Your task to perform on an android device: allow cookies in the chrome app Image 0: 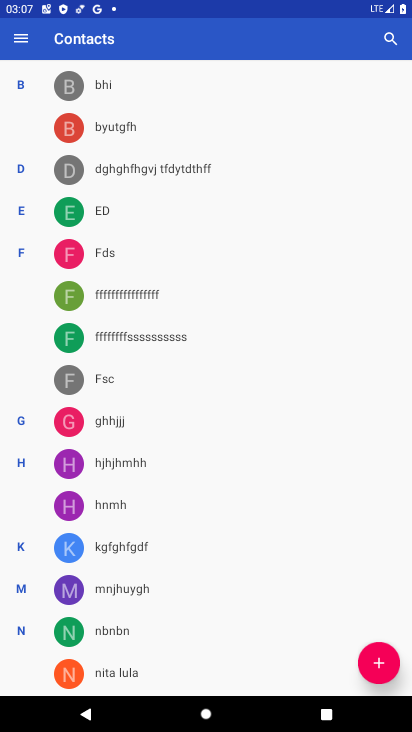
Step 0: press home button
Your task to perform on an android device: allow cookies in the chrome app Image 1: 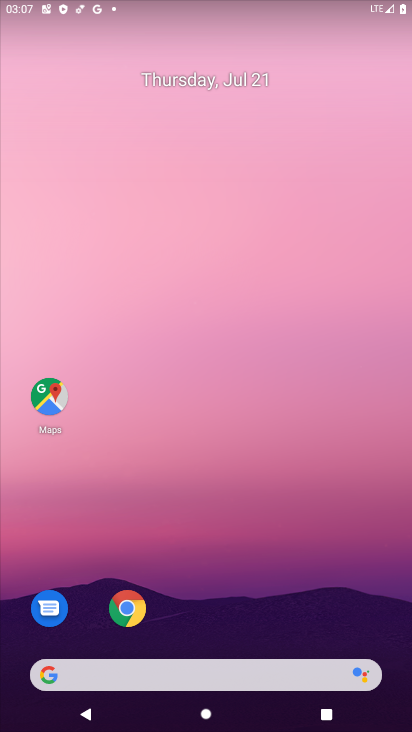
Step 1: drag from (217, 653) to (118, 75)
Your task to perform on an android device: allow cookies in the chrome app Image 2: 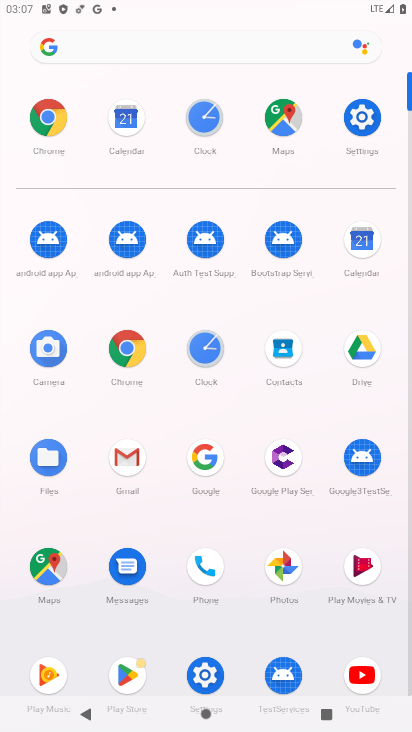
Step 2: click (126, 361)
Your task to perform on an android device: allow cookies in the chrome app Image 3: 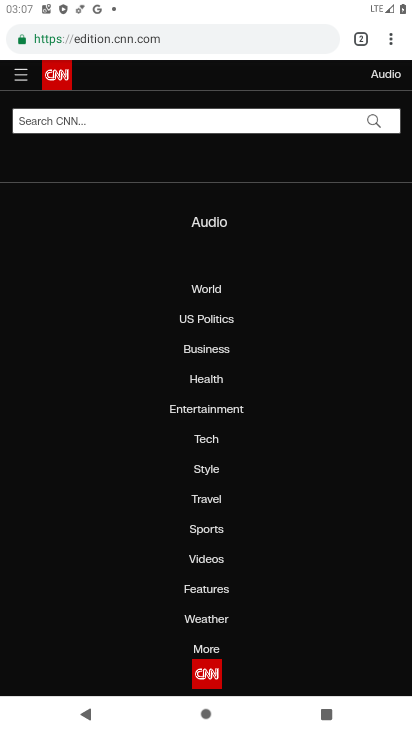
Step 3: drag from (389, 38) to (266, 515)
Your task to perform on an android device: allow cookies in the chrome app Image 4: 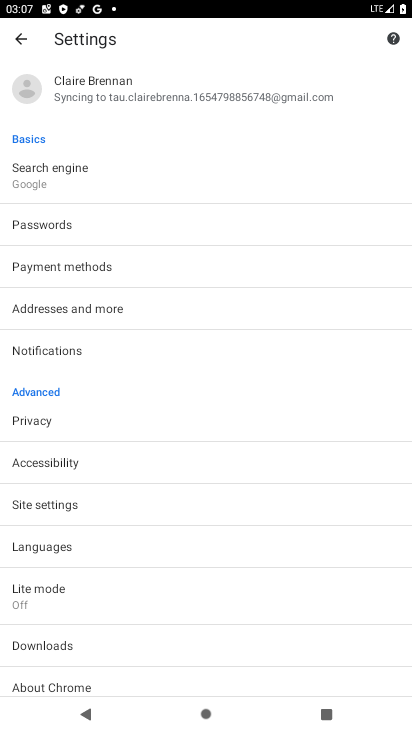
Step 4: click (48, 502)
Your task to perform on an android device: allow cookies in the chrome app Image 5: 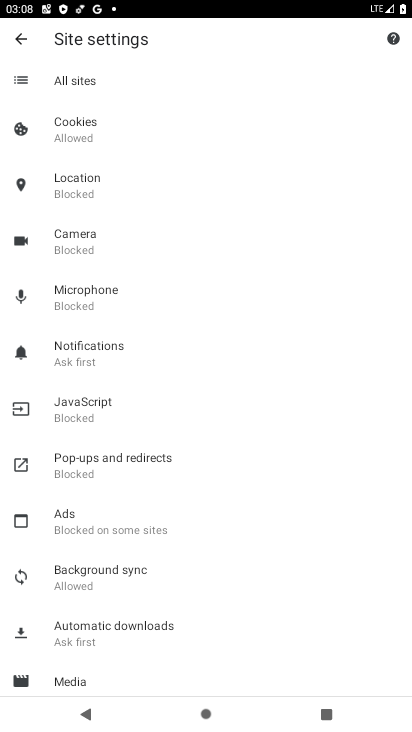
Step 5: click (69, 131)
Your task to perform on an android device: allow cookies in the chrome app Image 6: 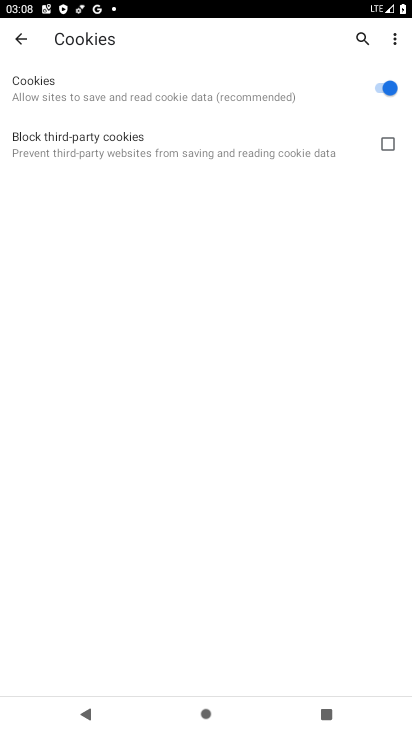
Step 6: task complete